Your task to perform on an android device: turn off picture-in-picture Image 0: 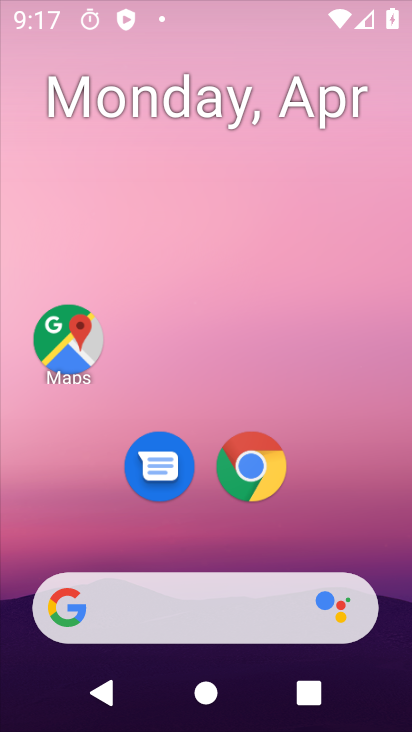
Step 0: drag from (201, 546) to (189, 9)
Your task to perform on an android device: turn off picture-in-picture Image 1: 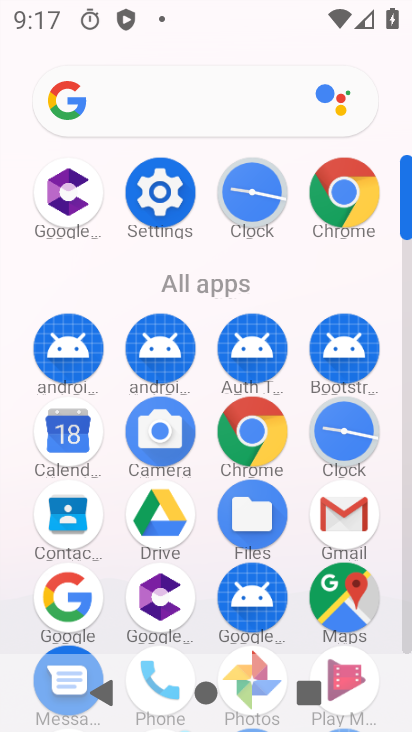
Step 1: click (161, 183)
Your task to perform on an android device: turn off picture-in-picture Image 2: 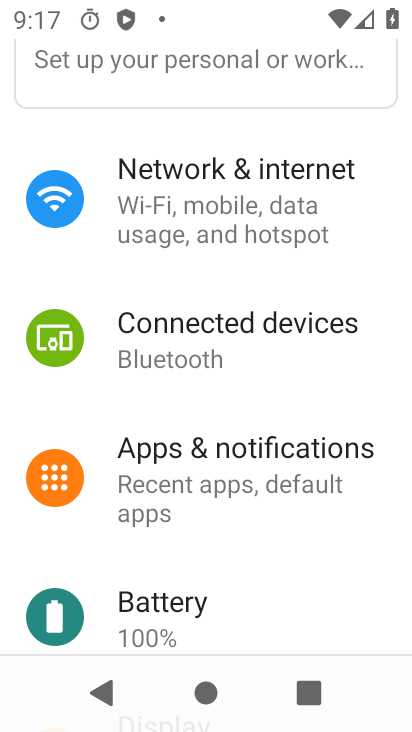
Step 2: drag from (227, 554) to (164, 135)
Your task to perform on an android device: turn off picture-in-picture Image 3: 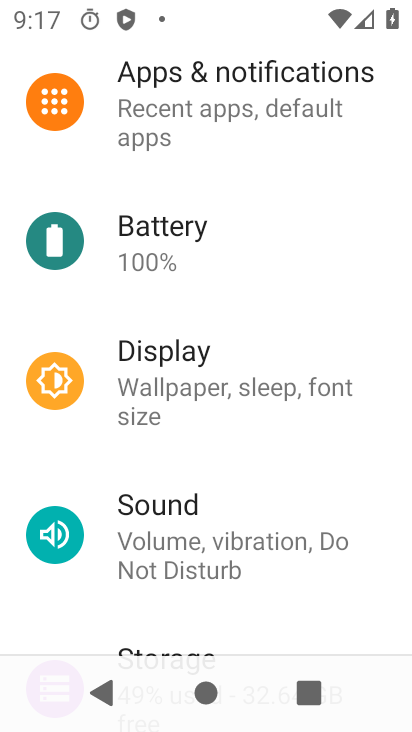
Step 3: click (140, 95)
Your task to perform on an android device: turn off picture-in-picture Image 4: 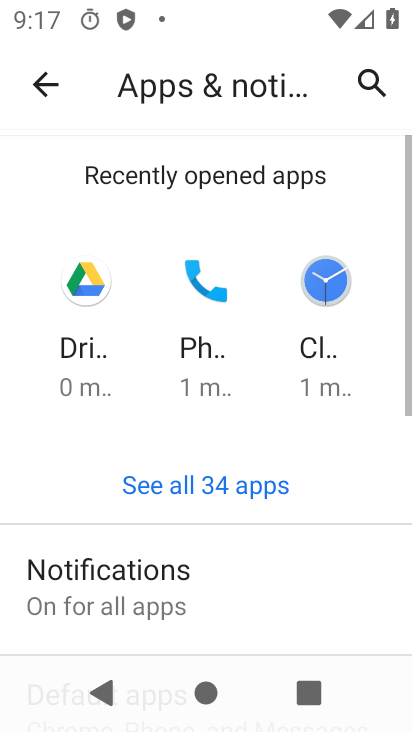
Step 4: drag from (253, 536) to (200, 22)
Your task to perform on an android device: turn off picture-in-picture Image 5: 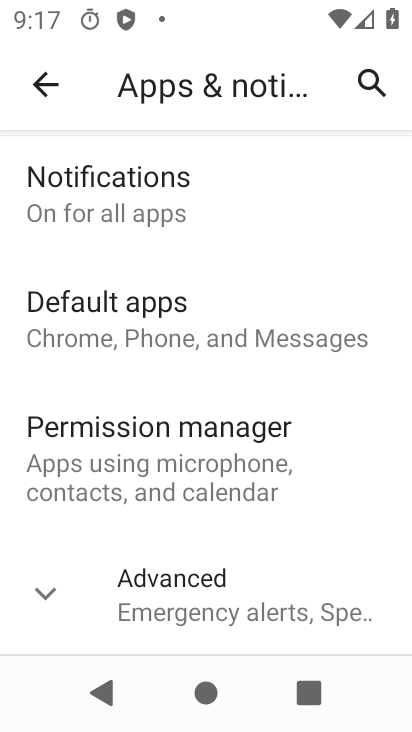
Step 5: click (204, 593)
Your task to perform on an android device: turn off picture-in-picture Image 6: 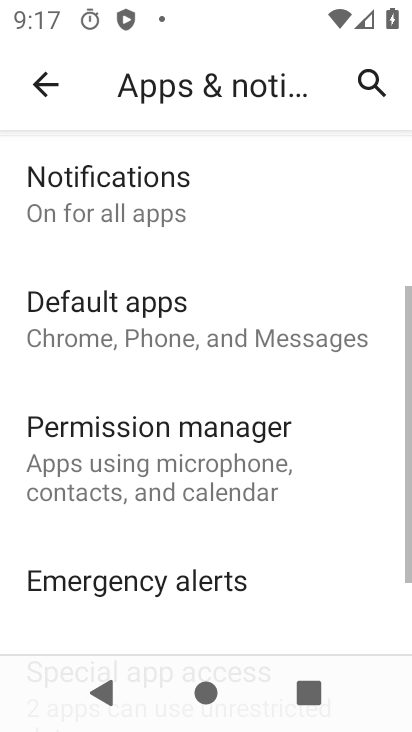
Step 6: drag from (225, 561) to (197, 207)
Your task to perform on an android device: turn off picture-in-picture Image 7: 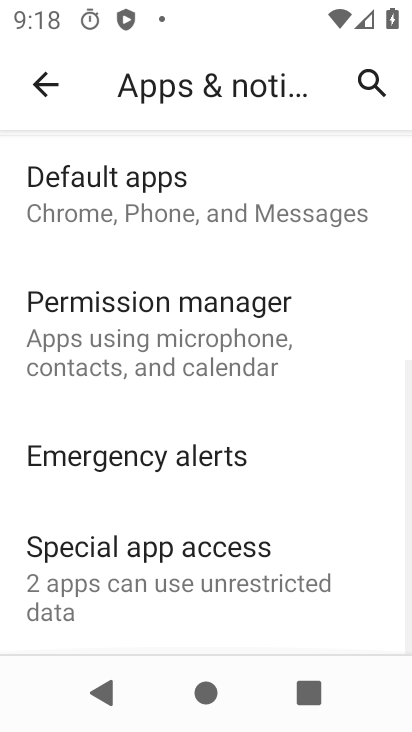
Step 7: click (229, 560)
Your task to perform on an android device: turn off picture-in-picture Image 8: 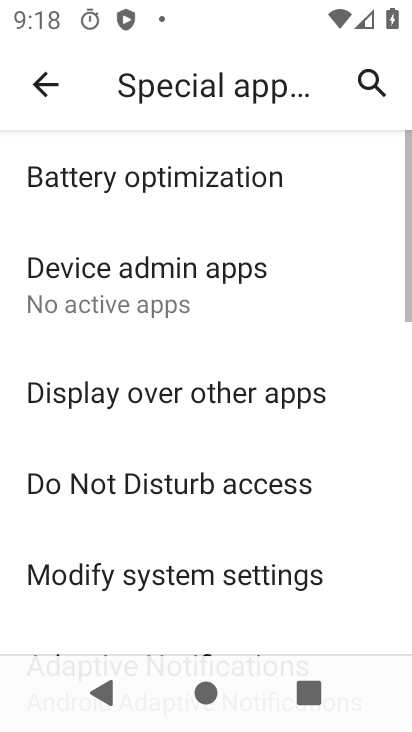
Step 8: drag from (233, 542) to (183, 216)
Your task to perform on an android device: turn off picture-in-picture Image 9: 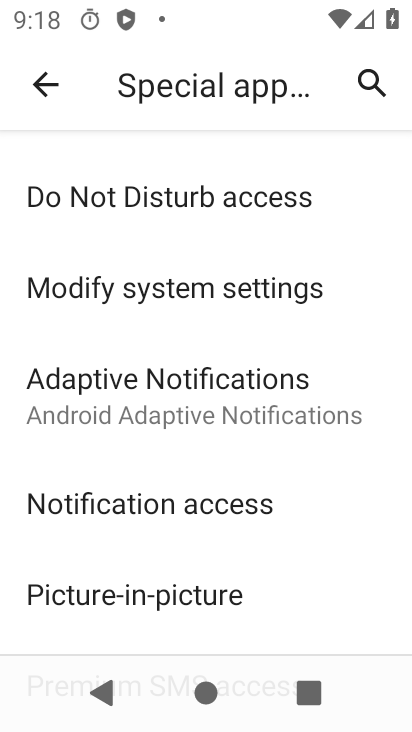
Step 9: click (146, 627)
Your task to perform on an android device: turn off picture-in-picture Image 10: 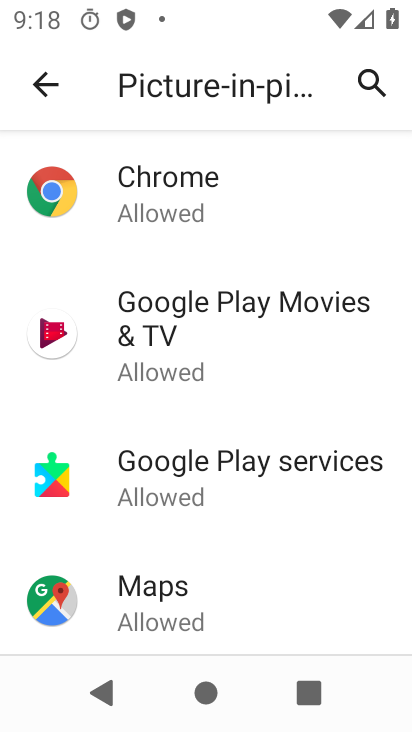
Step 10: task complete